Your task to perform on an android device: turn notification dots off Image 0: 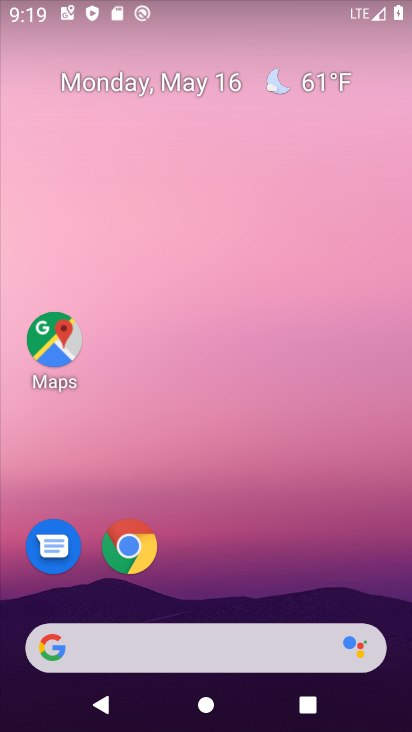
Step 0: drag from (361, 610) to (265, 190)
Your task to perform on an android device: turn notification dots off Image 1: 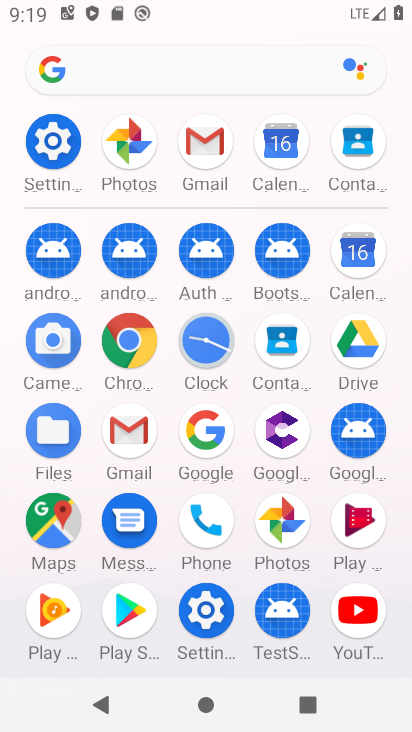
Step 1: click (62, 141)
Your task to perform on an android device: turn notification dots off Image 2: 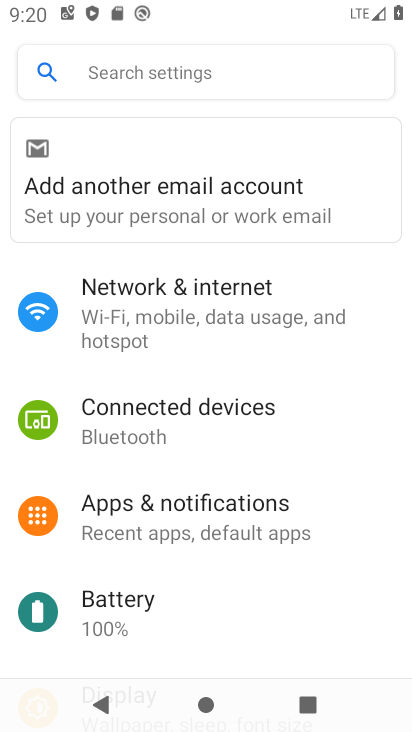
Step 2: click (256, 514)
Your task to perform on an android device: turn notification dots off Image 3: 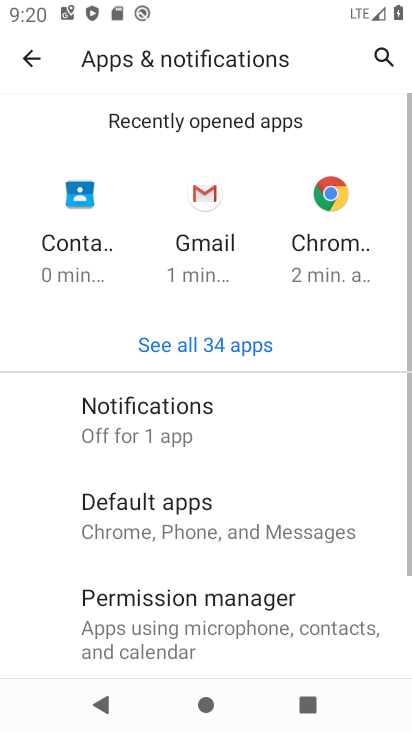
Step 3: click (219, 398)
Your task to perform on an android device: turn notification dots off Image 4: 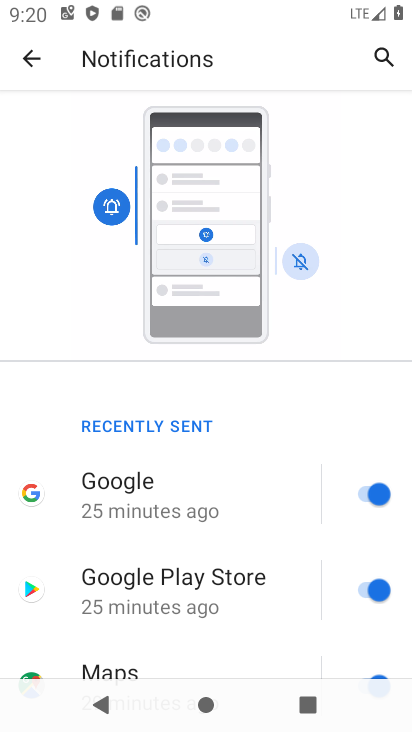
Step 4: drag from (320, 620) to (268, 226)
Your task to perform on an android device: turn notification dots off Image 5: 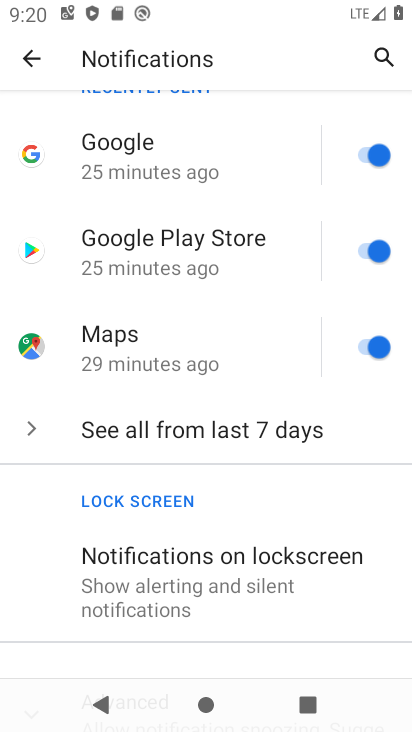
Step 5: drag from (253, 574) to (239, 365)
Your task to perform on an android device: turn notification dots off Image 6: 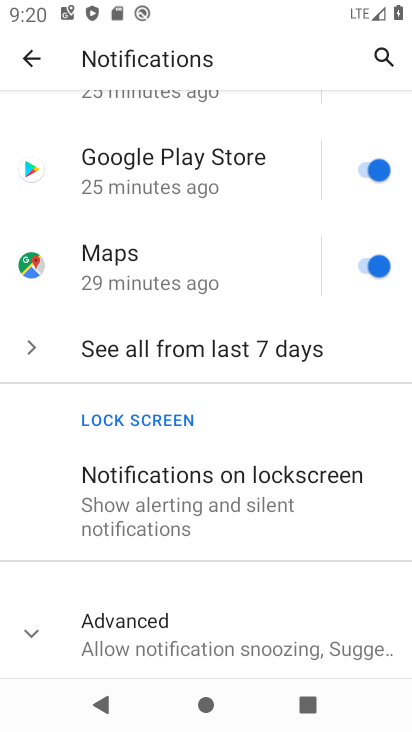
Step 6: click (205, 627)
Your task to perform on an android device: turn notification dots off Image 7: 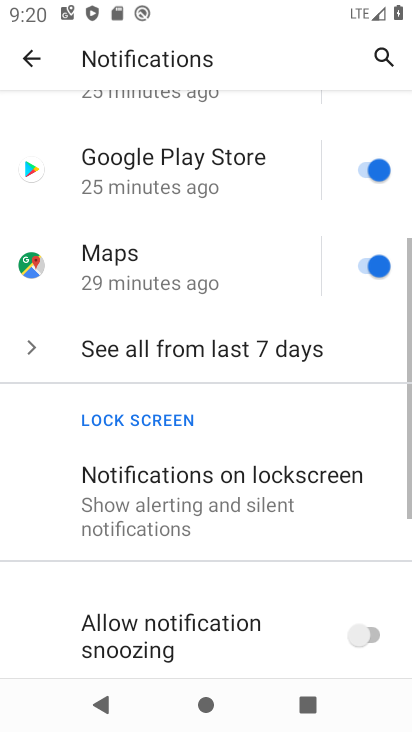
Step 7: task complete